Your task to perform on an android device: Is it going to rain this weekend? Image 0: 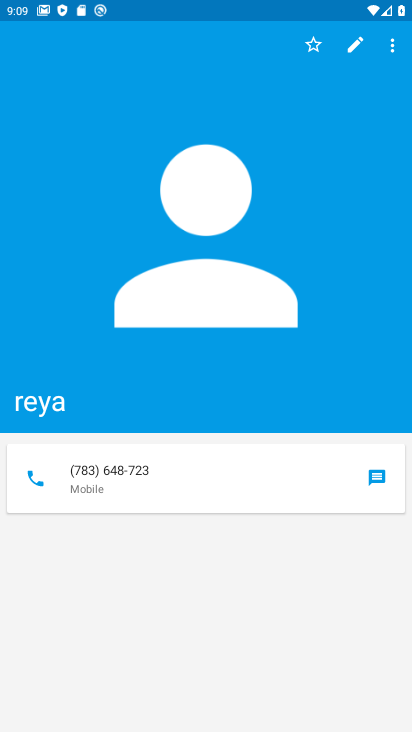
Step 0: press home button
Your task to perform on an android device: Is it going to rain this weekend? Image 1: 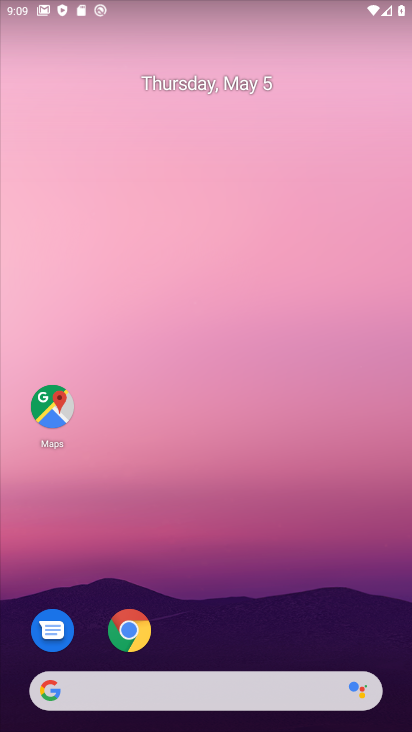
Step 1: click (162, 634)
Your task to perform on an android device: Is it going to rain this weekend? Image 2: 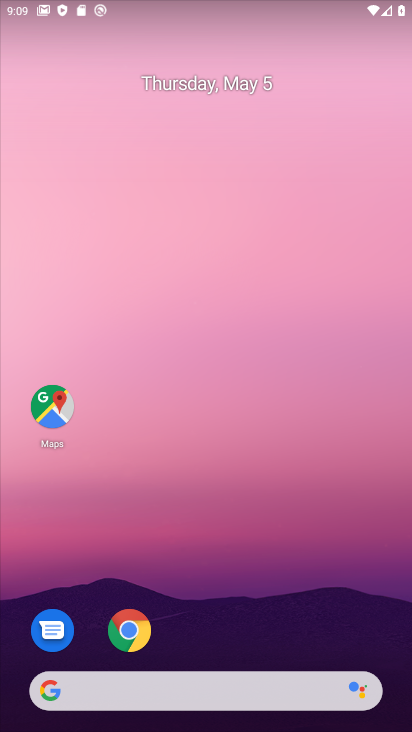
Step 2: click (141, 639)
Your task to perform on an android device: Is it going to rain this weekend? Image 3: 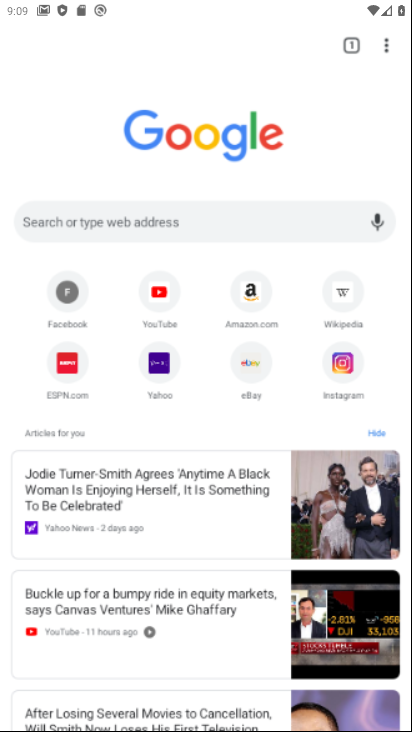
Step 3: click (127, 220)
Your task to perform on an android device: Is it going to rain this weekend? Image 4: 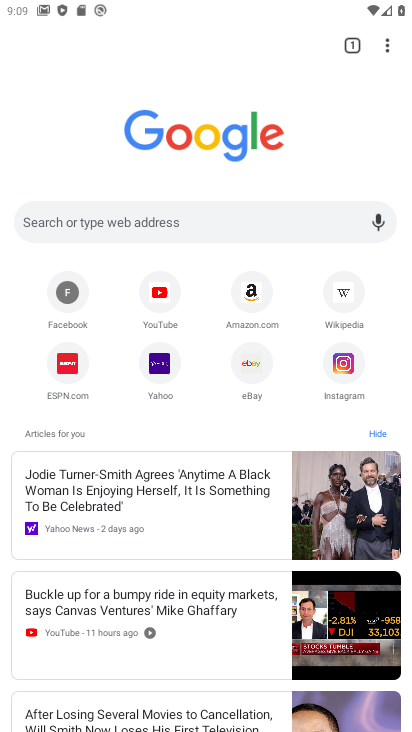
Step 4: click (92, 216)
Your task to perform on an android device: Is it going to rain this weekend? Image 5: 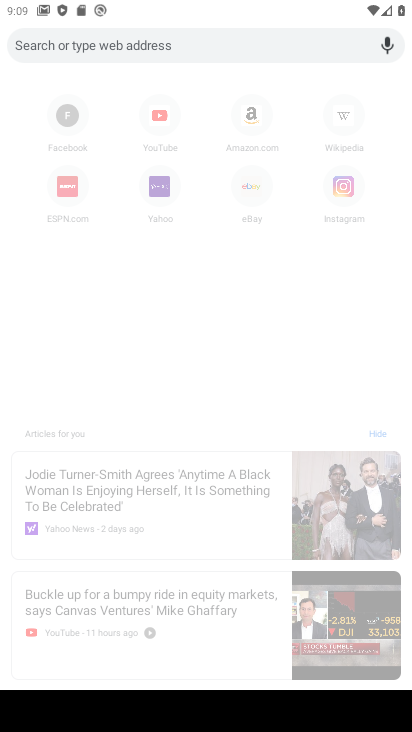
Step 5: type "is it going to rain this weekend"
Your task to perform on an android device: Is it going to rain this weekend? Image 6: 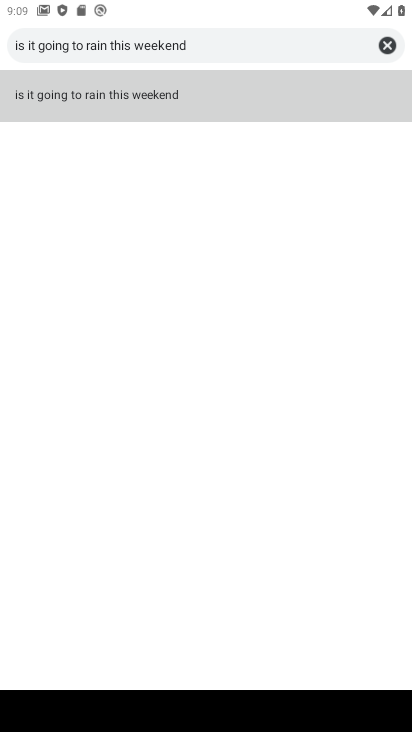
Step 6: click (53, 86)
Your task to perform on an android device: Is it going to rain this weekend? Image 7: 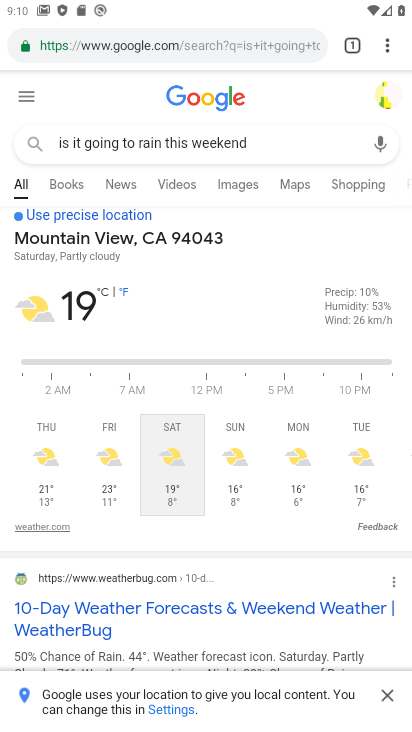
Step 7: task complete